Your task to perform on an android device: What is the recent news? Image 0: 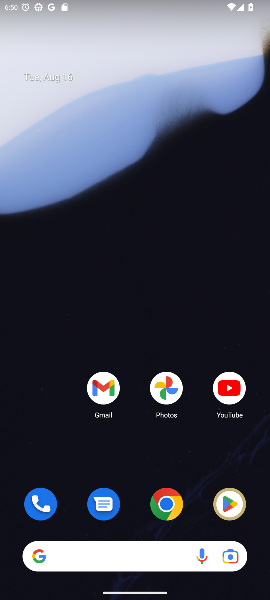
Step 0: click (56, 548)
Your task to perform on an android device: What is the recent news? Image 1: 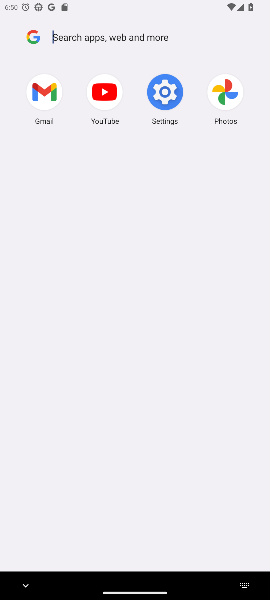
Step 1: type "What is the recent new"
Your task to perform on an android device: What is the recent news? Image 2: 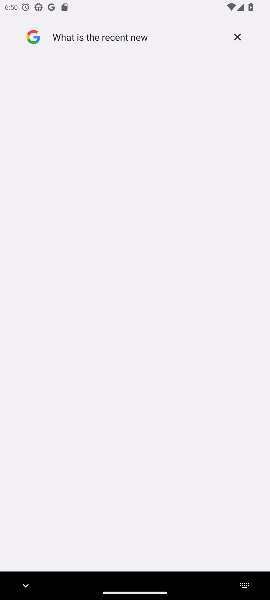
Step 2: type ""
Your task to perform on an android device: What is the recent news? Image 3: 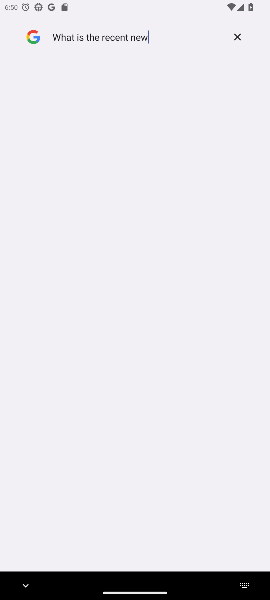
Step 3: type ""
Your task to perform on an android device: What is the recent news? Image 4: 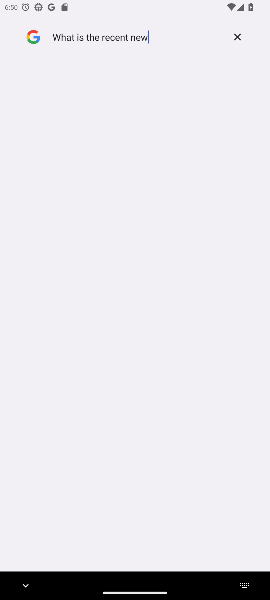
Step 4: type ""
Your task to perform on an android device: What is the recent news? Image 5: 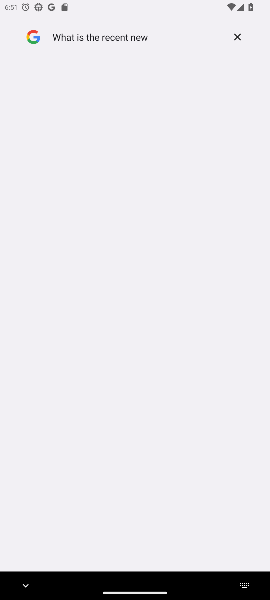
Step 5: task complete